Your task to perform on an android device: Open Google Chrome and click the shortcut for Amazon.com Image 0: 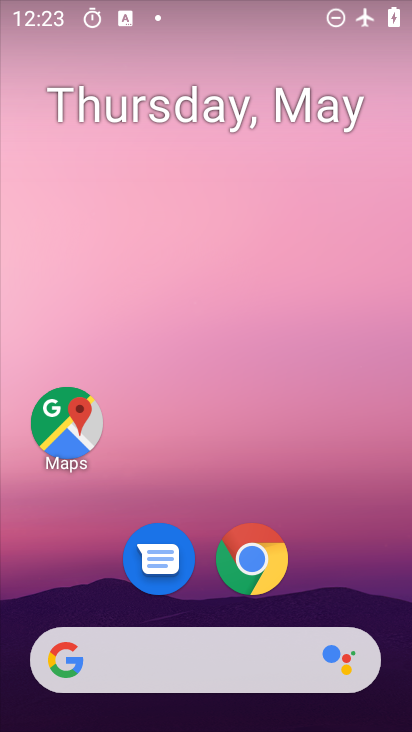
Step 0: drag from (225, 688) to (278, 194)
Your task to perform on an android device: Open Google Chrome and click the shortcut for Amazon.com Image 1: 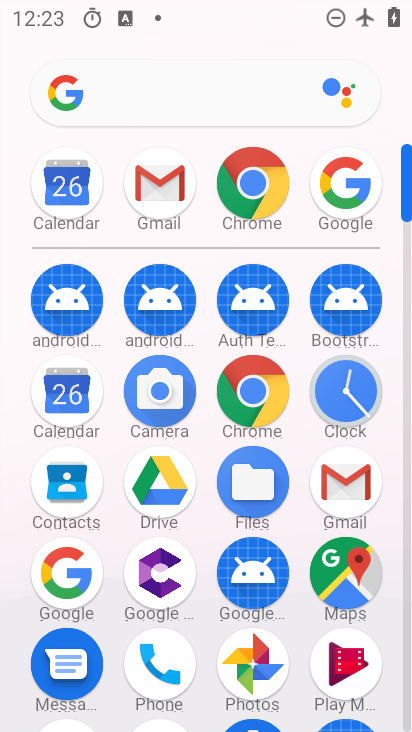
Step 1: click (252, 194)
Your task to perform on an android device: Open Google Chrome and click the shortcut for Amazon.com Image 2: 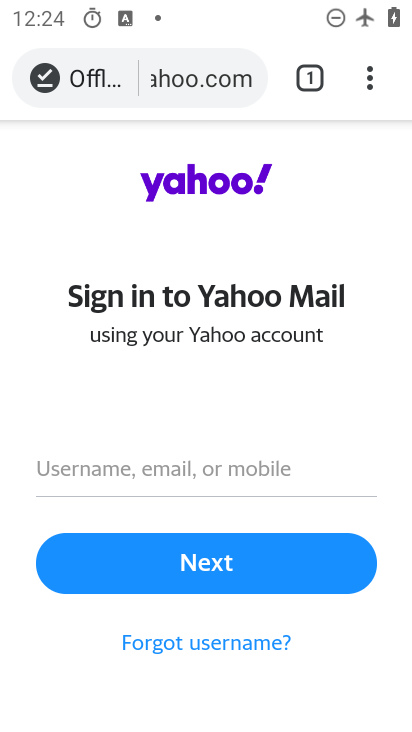
Step 2: drag from (315, 72) to (302, 348)
Your task to perform on an android device: Open Google Chrome and click the shortcut for Amazon.com Image 3: 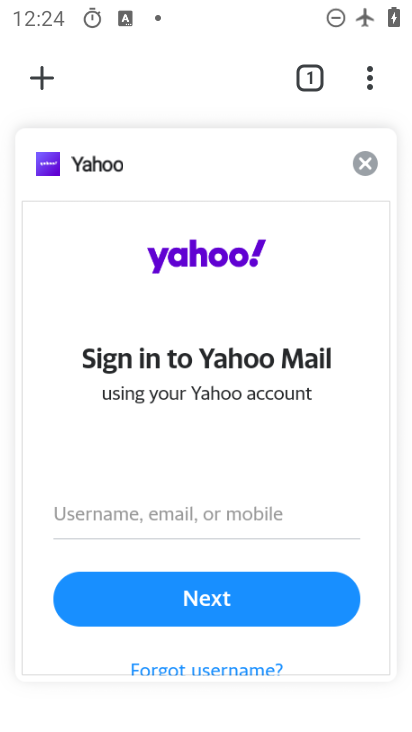
Step 3: click (49, 81)
Your task to perform on an android device: Open Google Chrome and click the shortcut for Amazon.com Image 4: 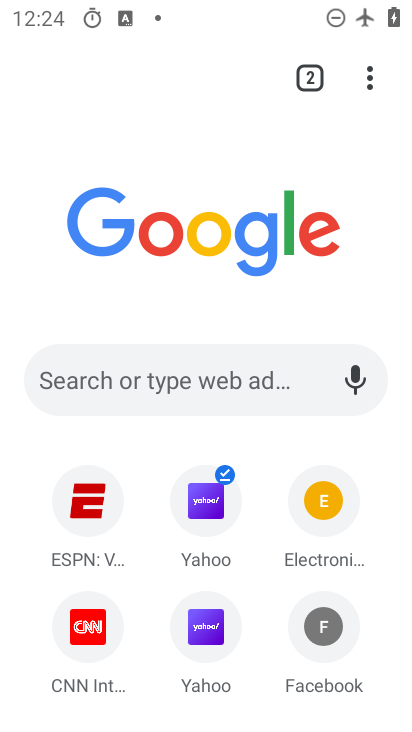
Step 4: task complete